Your task to perform on an android device: open a new tab in the chrome app Image 0: 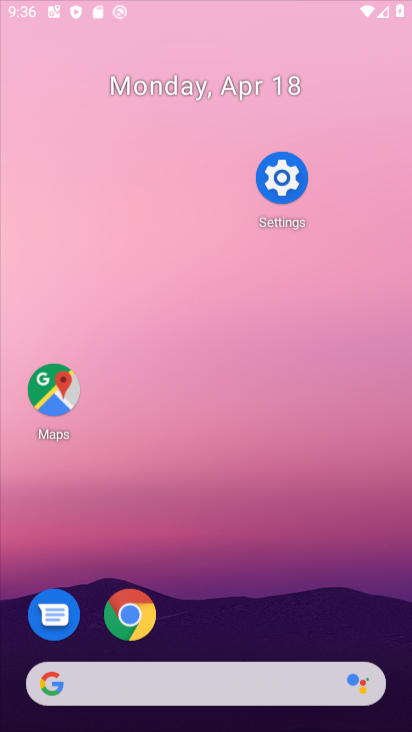
Step 0: click (115, 240)
Your task to perform on an android device: open a new tab in the chrome app Image 1: 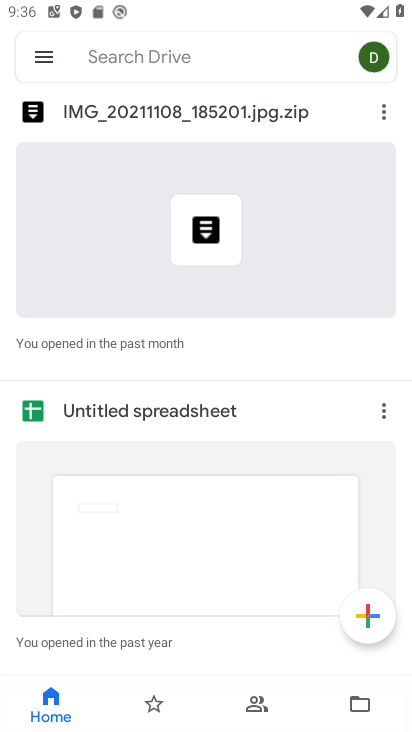
Step 1: press back button
Your task to perform on an android device: open a new tab in the chrome app Image 2: 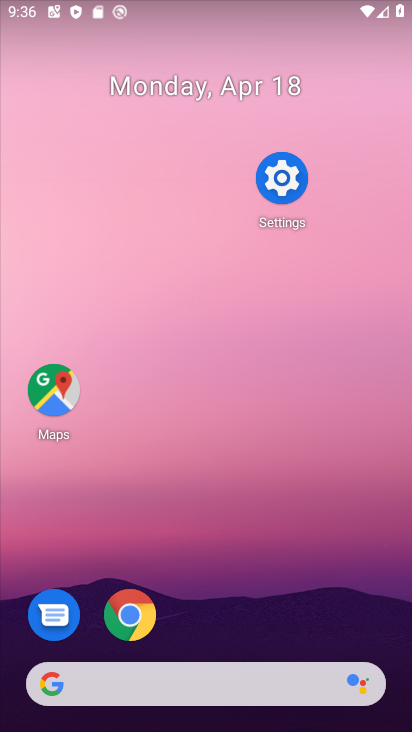
Step 2: drag from (264, 576) to (146, 100)
Your task to perform on an android device: open a new tab in the chrome app Image 3: 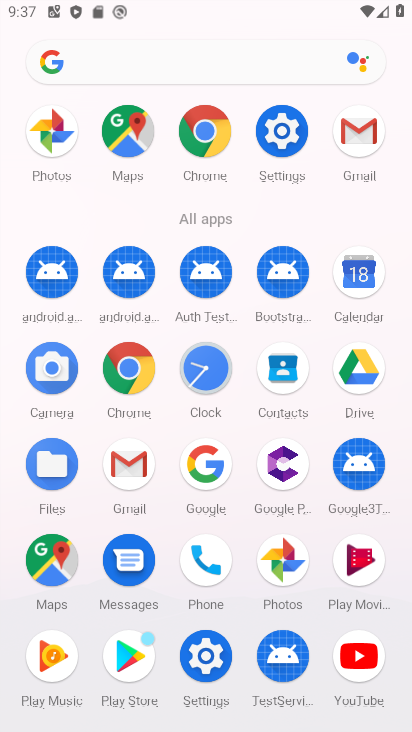
Step 3: click (208, 137)
Your task to perform on an android device: open a new tab in the chrome app Image 4: 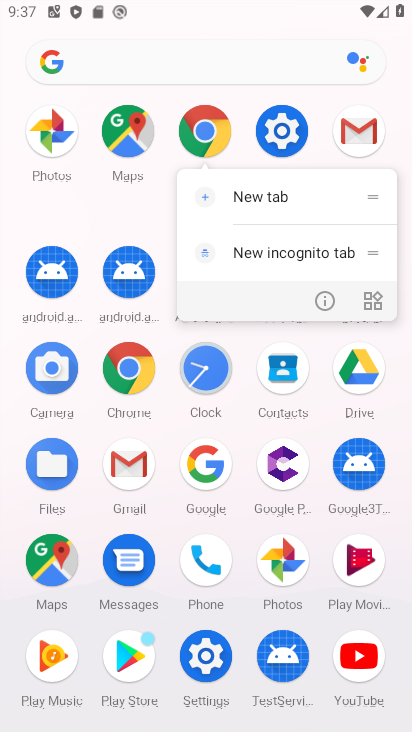
Step 4: click (260, 205)
Your task to perform on an android device: open a new tab in the chrome app Image 5: 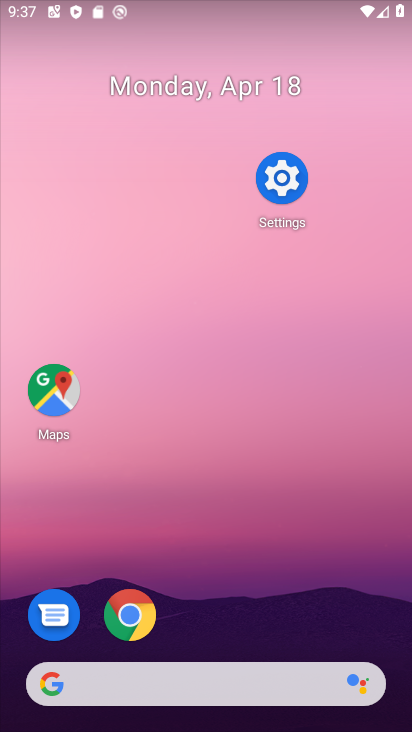
Step 5: task complete